Your task to perform on an android device: Go to Google Image 0: 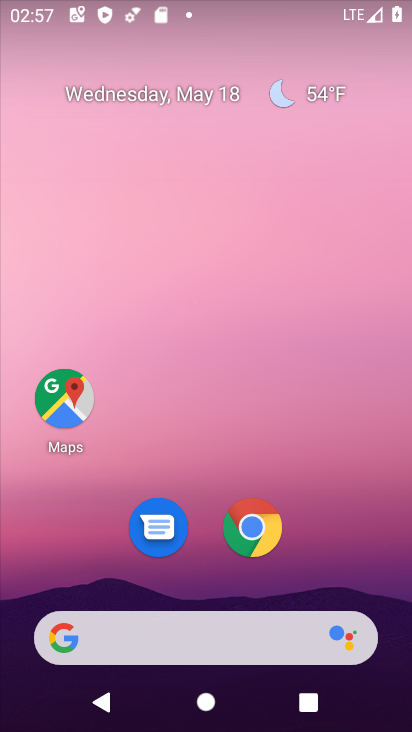
Step 0: drag from (214, 596) to (274, 44)
Your task to perform on an android device: Go to Google Image 1: 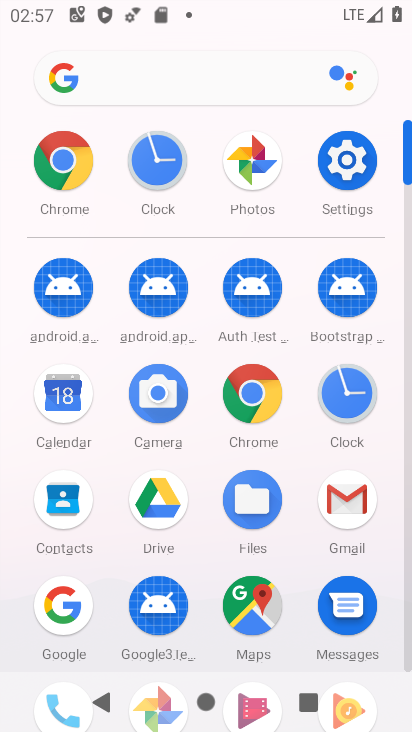
Step 1: click (80, 616)
Your task to perform on an android device: Go to Google Image 2: 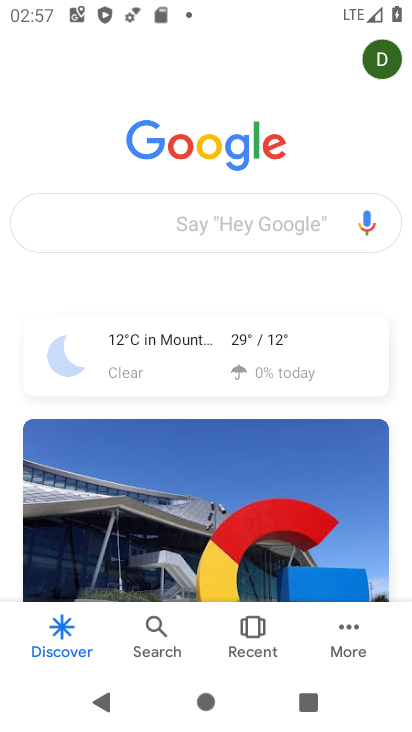
Step 2: task complete